Your task to perform on an android device: add a contact Image 0: 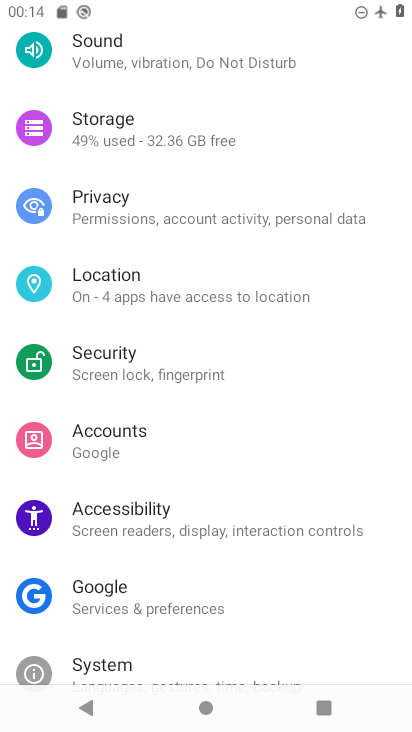
Step 0: press home button
Your task to perform on an android device: add a contact Image 1: 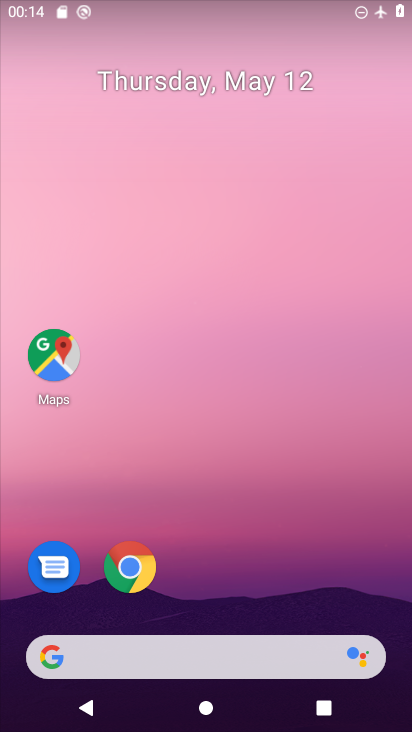
Step 1: drag from (263, 707) to (266, 139)
Your task to perform on an android device: add a contact Image 2: 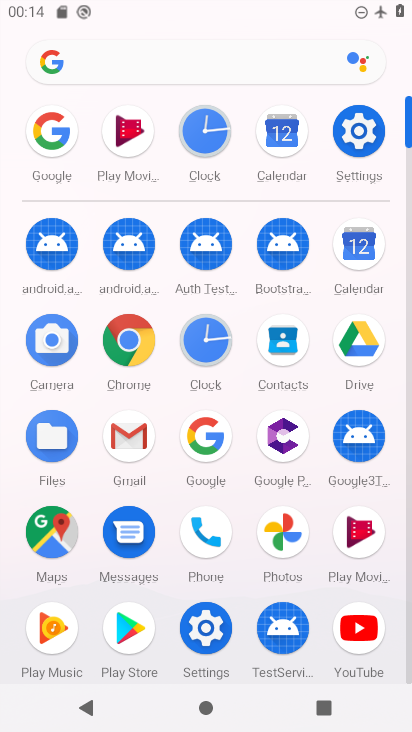
Step 2: click (280, 356)
Your task to perform on an android device: add a contact Image 3: 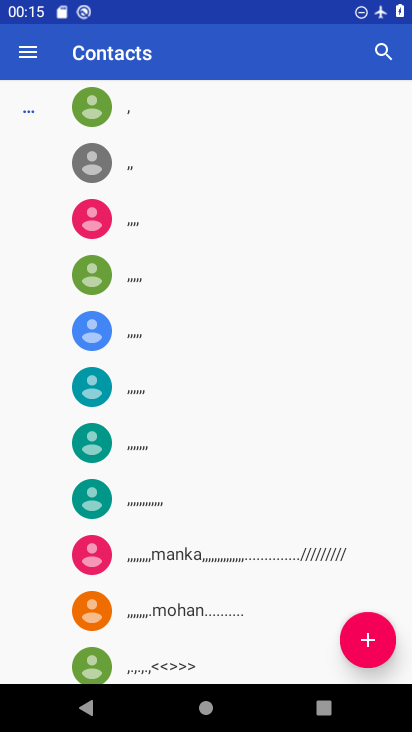
Step 3: click (368, 642)
Your task to perform on an android device: add a contact Image 4: 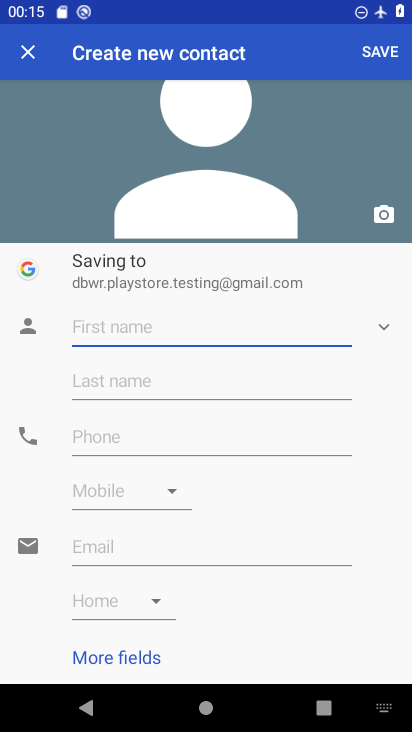
Step 4: type "jhgj"
Your task to perform on an android device: add a contact Image 5: 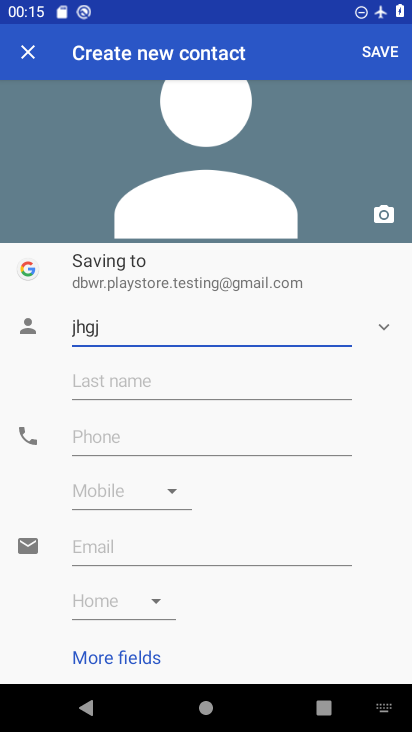
Step 5: click (119, 435)
Your task to perform on an android device: add a contact Image 6: 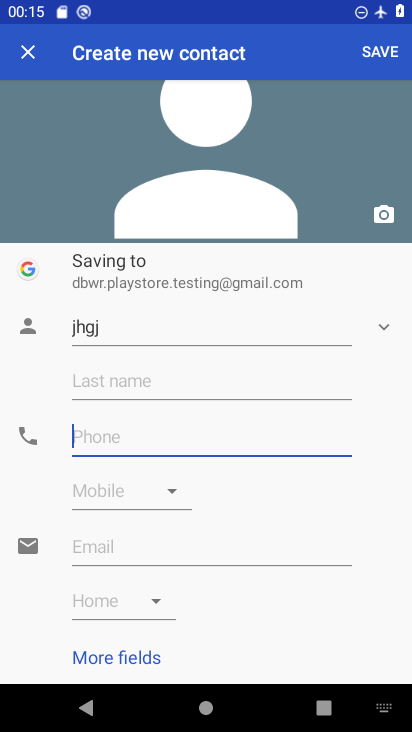
Step 6: type "8768"
Your task to perform on an android device: add a contact Image 7: 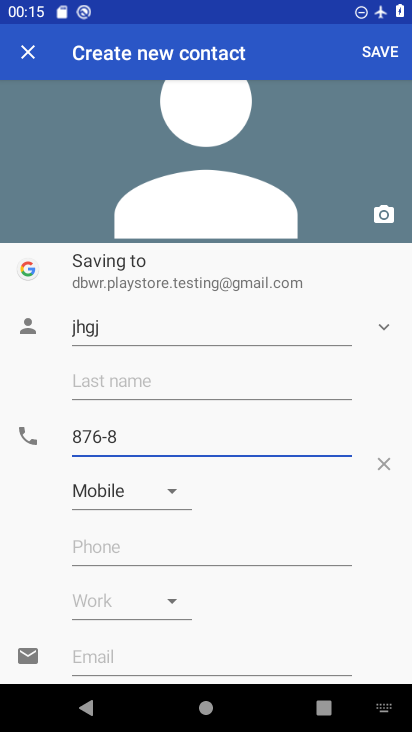
Step 7: click (387, 50)
Your task to perform on an android device: add a contact Image 8: 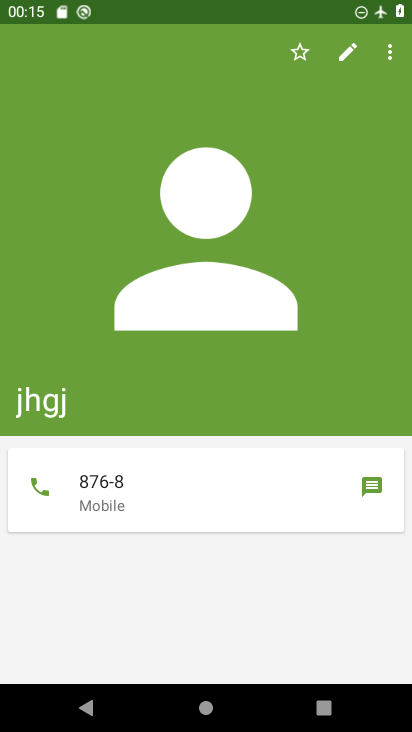
Step 8: task complete